Your task to perform on an android device: Go to display settings Image 0: 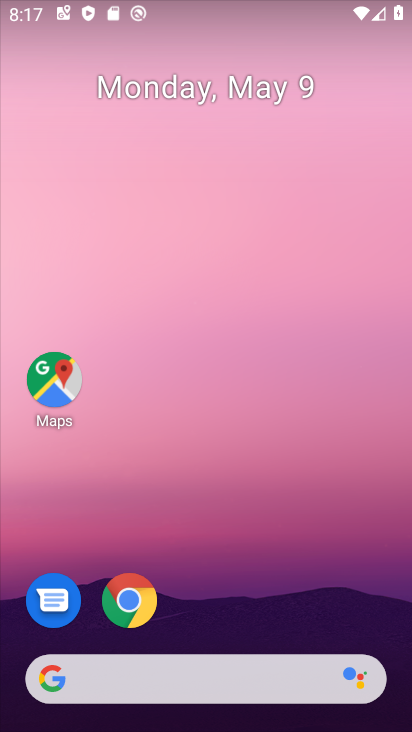
Step 0: drag from (275, 563) to (200, 23)
Your task to perform on an android device: Go to display settings Image 1: 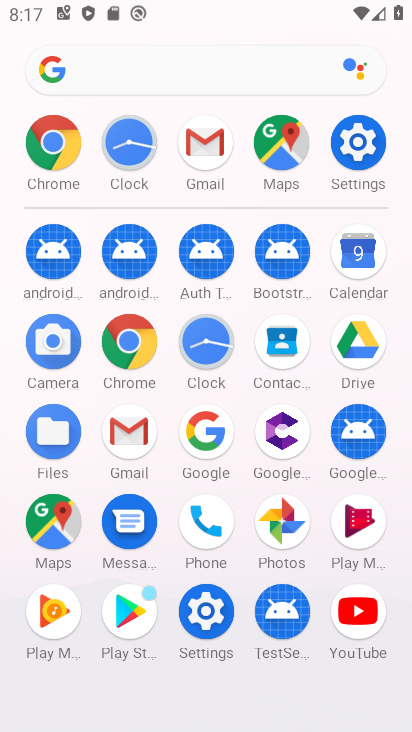
Step 1: click (203, 612)
Your task to perform on an android device: Go to display settings Image 2: 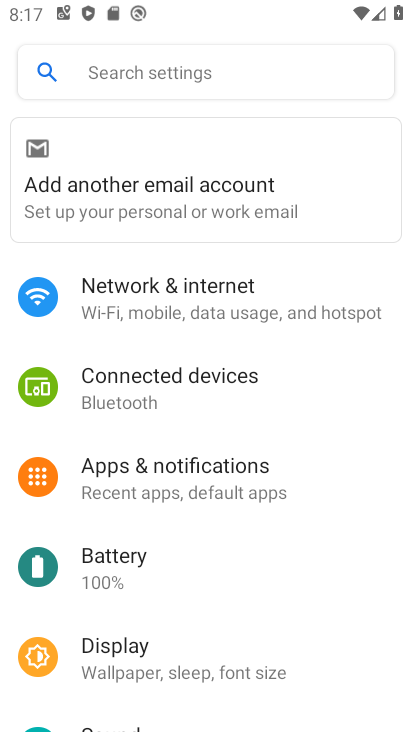
Step 2: click (157, 656)
Your task to perform on an android device: Go to display settings Image 3: 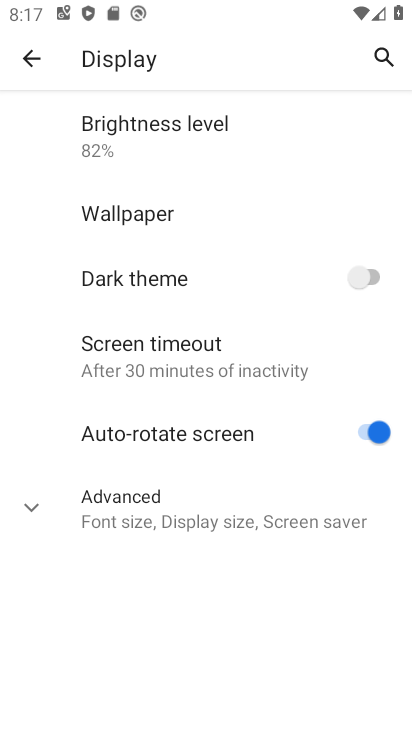
Step 3: click (37, 517)
Your task to perform on an android device: Go to display settings Image 4: 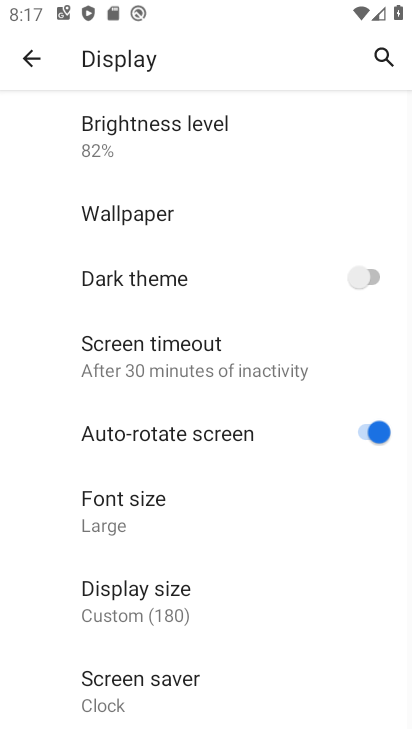
Step 4: task complete